Your task to perform on an android device: Open wifi settings Image 0: 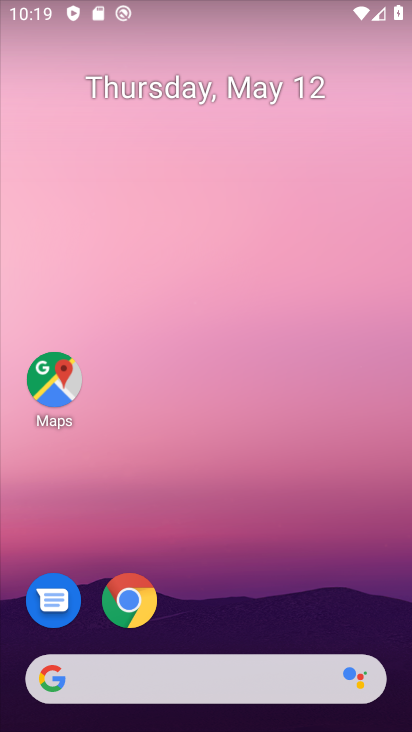
Step 0: drag from (272, 617) to (184, 7)
Your task to perform on an android device: Open wifi settings Image 1: 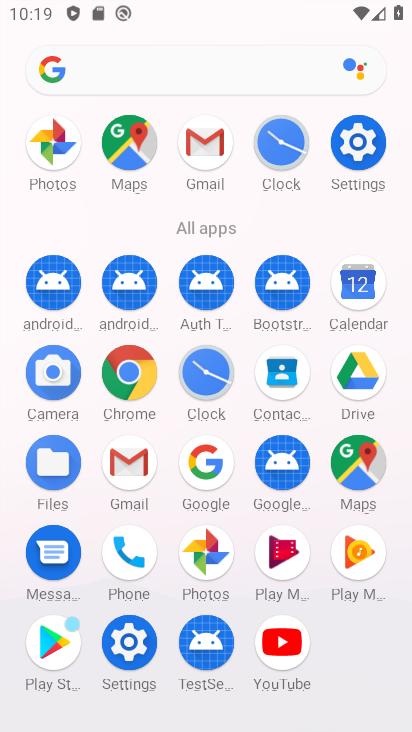
Step 1: click (363, 171)
Your task to perform on an android device: Open wifi settings Image 2: 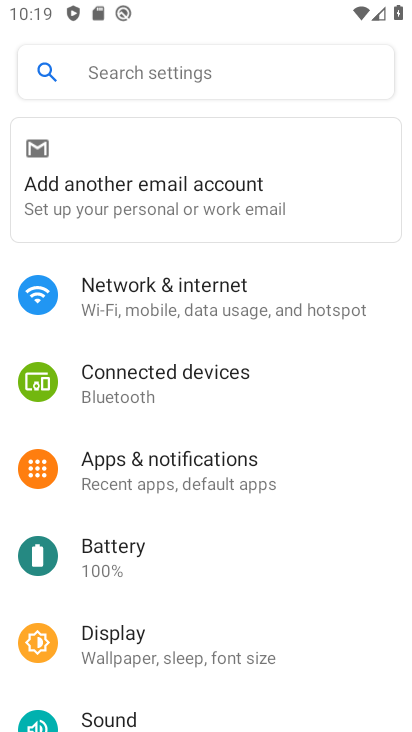
Step 2: click (186, 303)
Your task to perform on an android device: Open wifi settings Image 3: 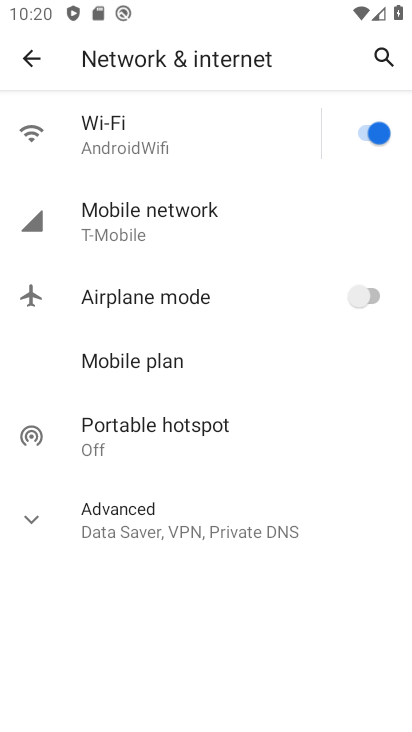
Step 3: click (137, 136)
Your task to perform on an android device: Open wifi settings Image 4: 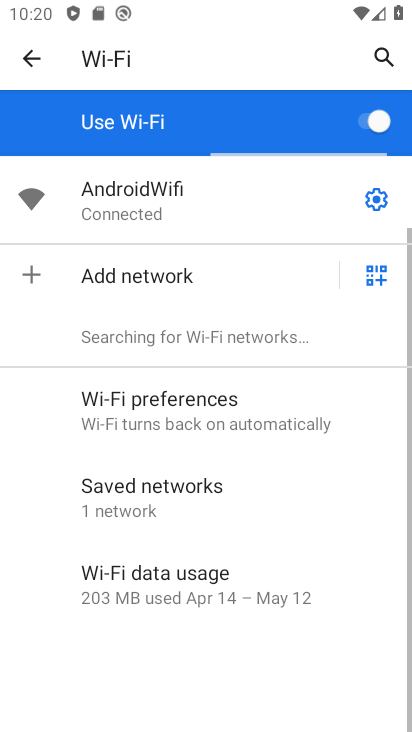
Step 4: task complete